Your task to perform on an android device: Go to notification settings Image 0: 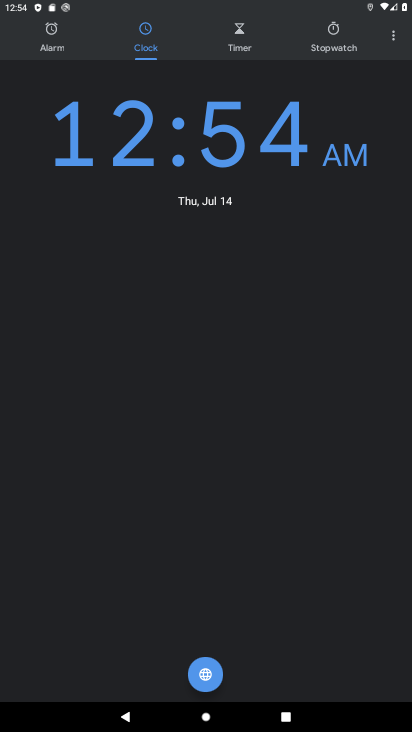
Step 0: press home button
Your task to perform on an android device: Go to notification settings Image 1: 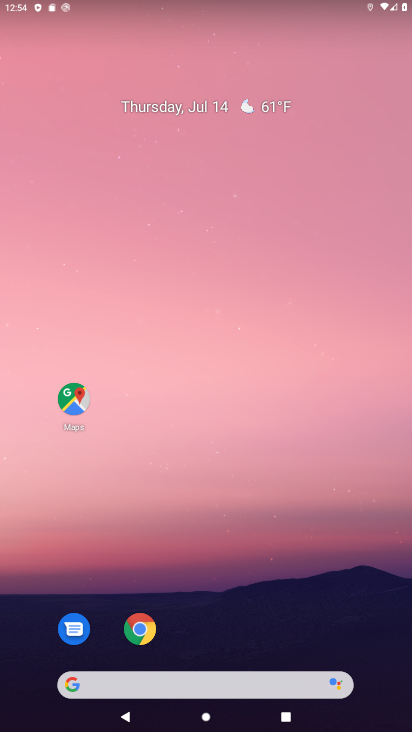
Step 1: drag from (247, 228) to (262, 117)
Your task to perform on an android device: Go to notification settings Image 2: 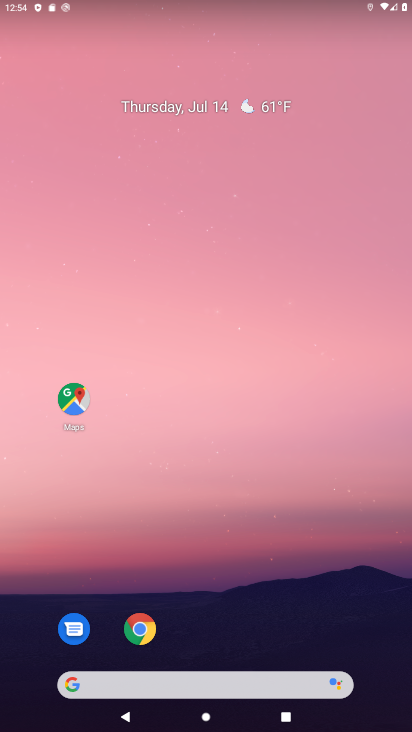
Step 2: drag from (234, 614) to (297, 50)
Your task to perform on an android device: Go to notification settings Image 3: 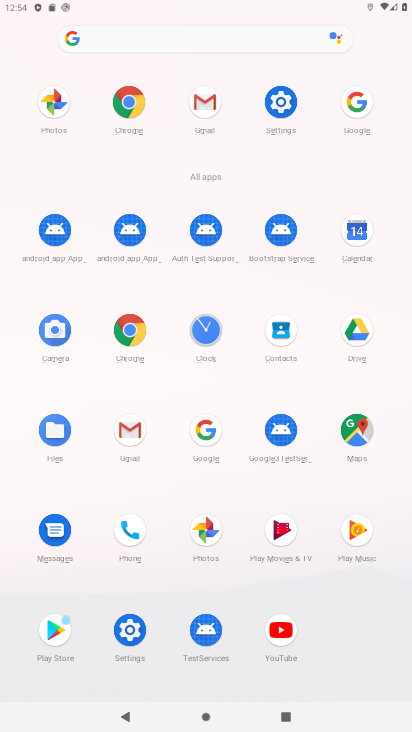
Step 3: click (282, 101)
Your task to perform on an android device: Go to notification settings Image 4: 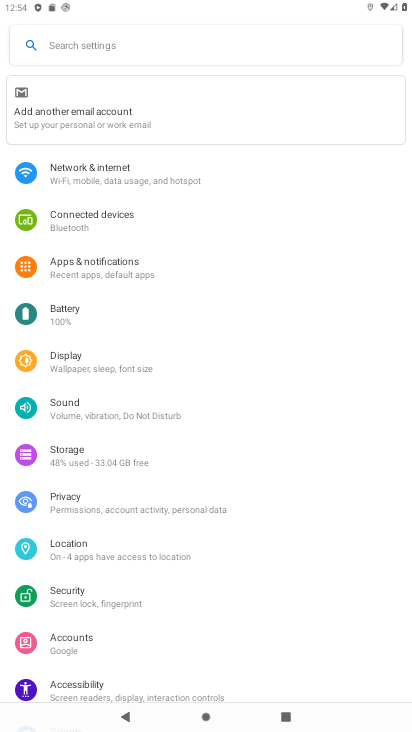
Step 4: click (117, 266)
Your task to perform on an android device: Go to notification settings Image 5: 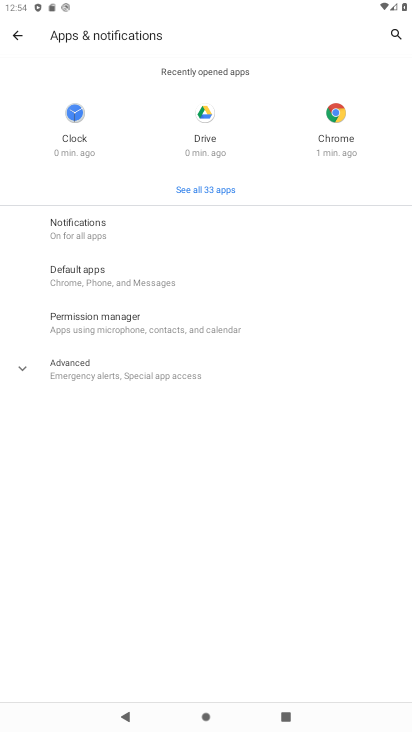
Step 5: click (108, 229)
Your task to perform on an android device: Go to notification settings Image 6: 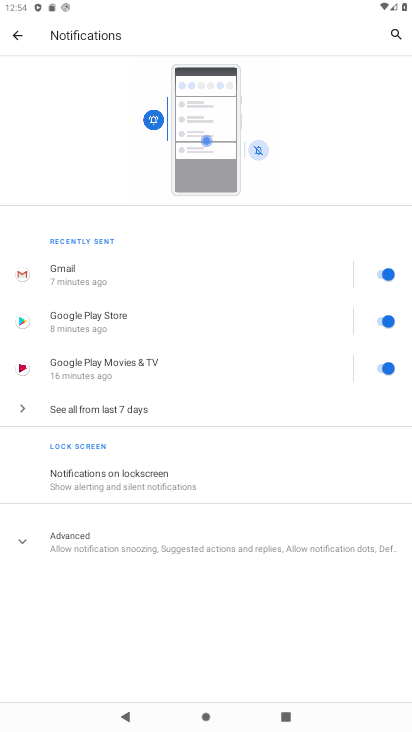
Step 6: task complete